Your task to perform on an android device: turn off notifications settings in the gmail app Image 0: 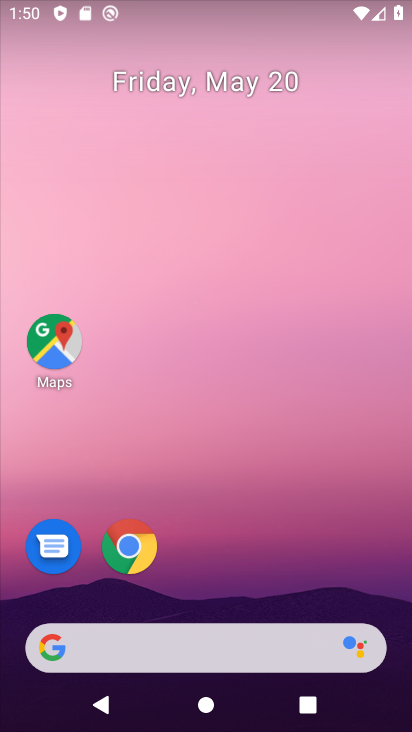
Step 0: click (230, 50)
Your task to perform on an android device: turn off notifications settings in the gmail app Image 1: 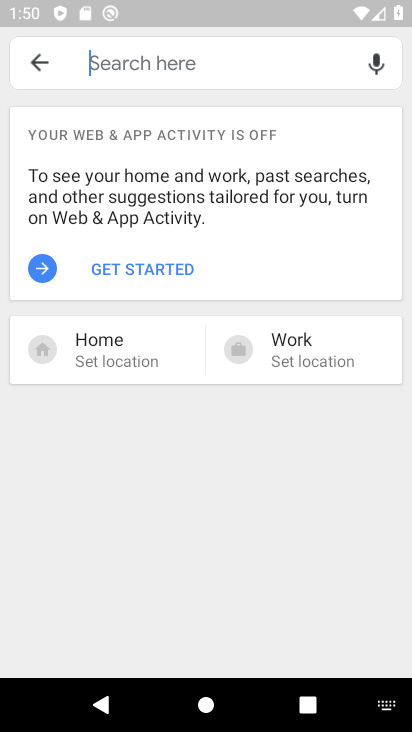
Step 1: press back button
Your task to perform on an android device: turn off notifications settings in the gmail app Image 2: 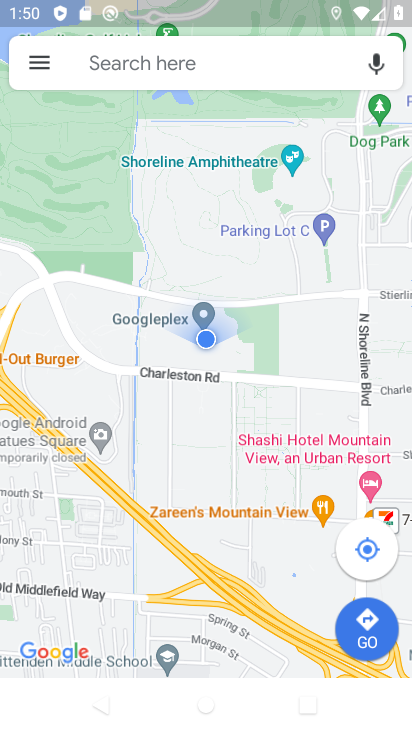
Step 2: press back button
Your task to perform on an android device: turn off notifications settings in the gmail app Image 3: 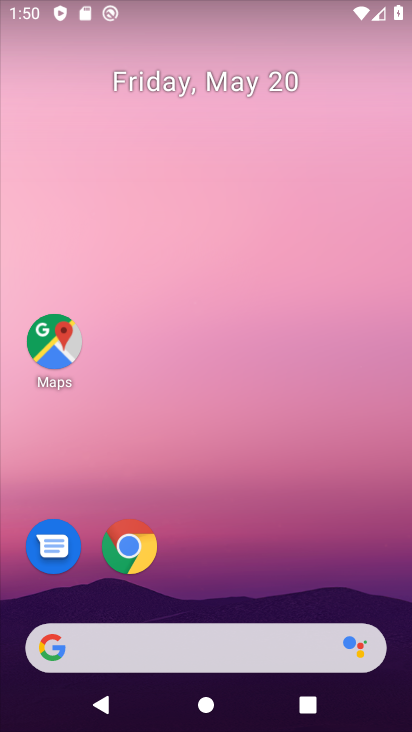
Step 3: drag from (276, 553) to (208, 9)
Your task to perform on an android device: turn off notifications settings in the gmail app Image 4: 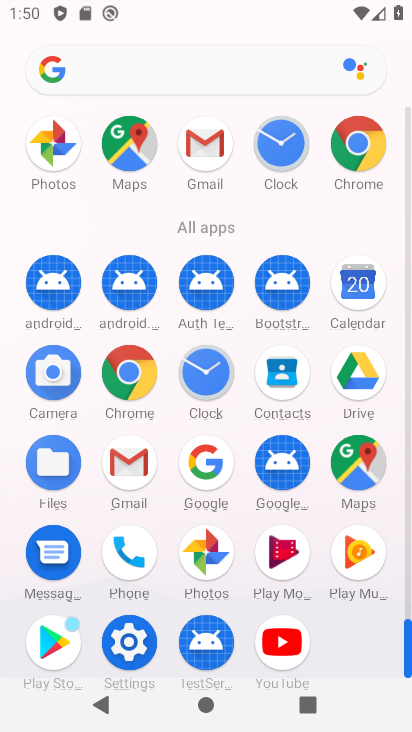
Step 4: drag from (10, 457) to (12, 264)
Your task to perform on an android device: turn off notifications settings in the gmail app Image 5: 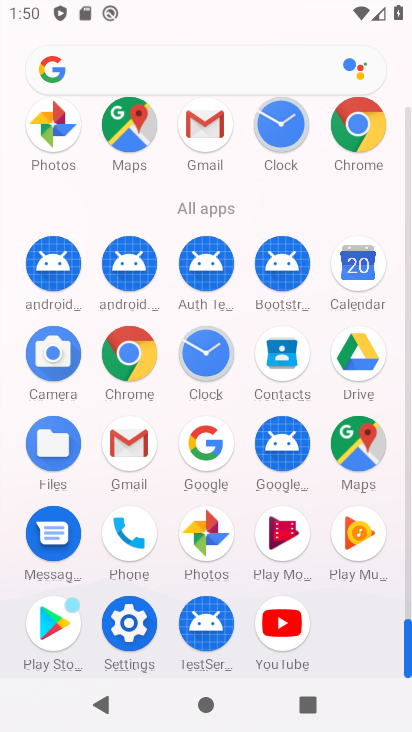
Step 5: click (126, 439)
Your task to perform on an android device: turn off notifications settings in the gmail app Image 6: 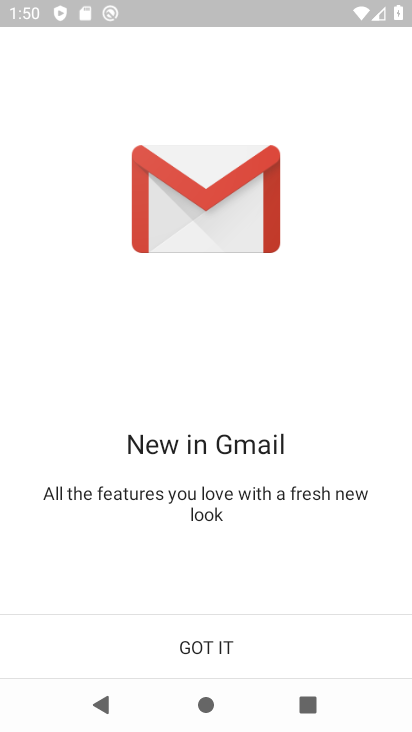
Step 6: click (162, 628)
Your task to perform on an android device: turn off notifications settings in the gmail app Image 7: 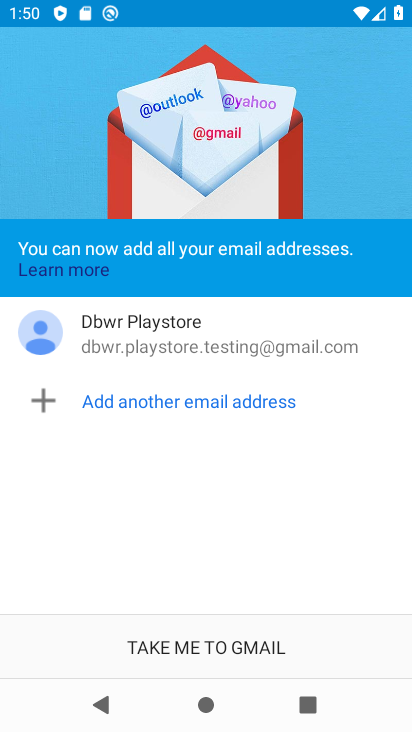
Step 7: click (162, 628)
Your task to perform on an android device: turn off notifications settings in the gmail app Image 8: 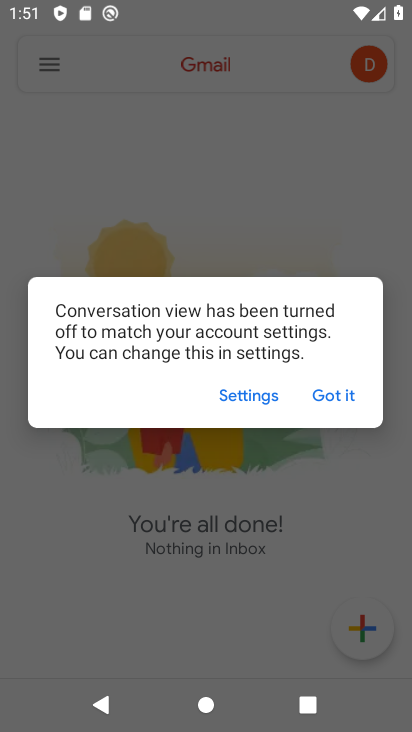
Step 8: click (328, 389)
Your task to perform on an android device: turn off notifications settings in the gmail app Image 9: 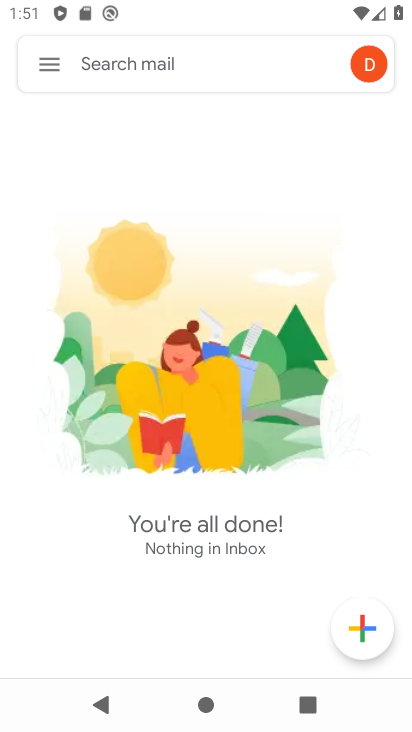
Step 9: click (47, 59)
Your task to perform on an android device: turn off notifications settings in the gmail app Image 10: 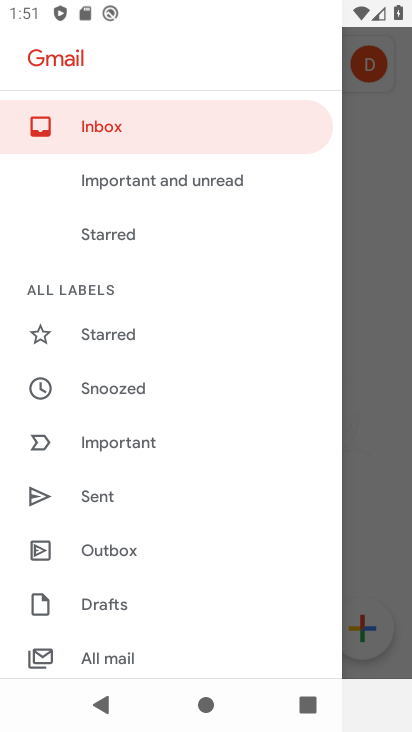
Step 10: drag from (211, 551) to (202, 83)
Your task to perform on an android device: turn off notifications settings in the gmail app Image 11: 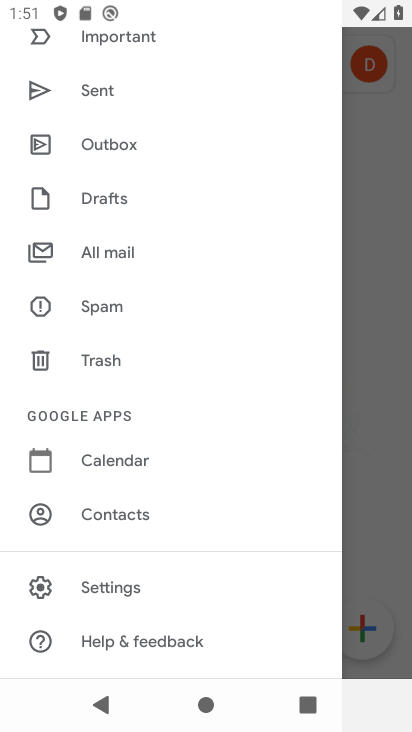
Step 11: click (91, 585)
Your task to perform on an android device: turn off notifications settings in the gmail app Image 12: 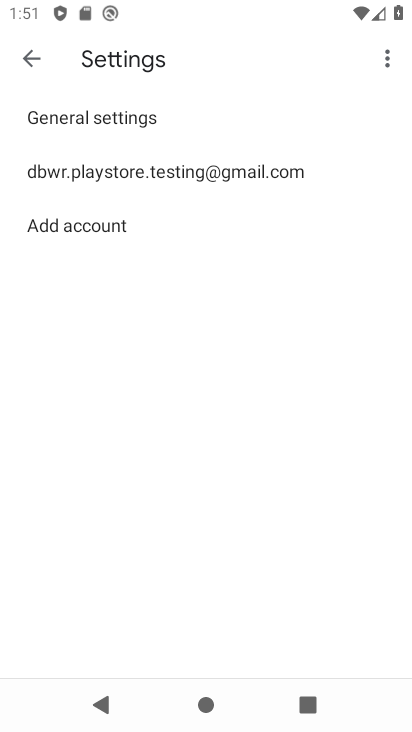
Step 12: click (158, 175)
Your task to perform on an android device: turn off notifications settings in the gmail app Image 13: 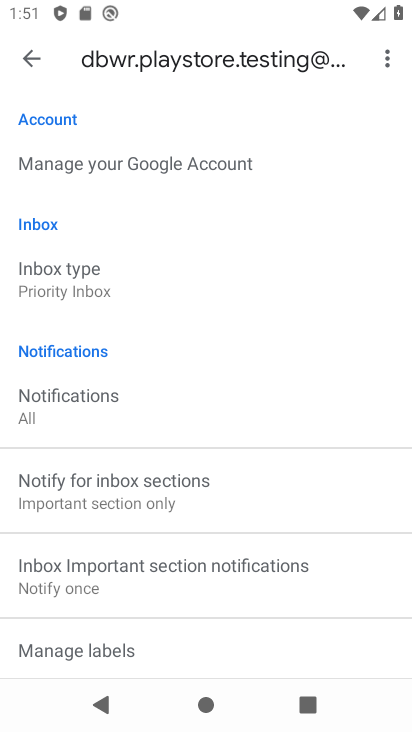
Step 13: drag from (218, 572) to (221, 238)
Your task to perform on an android device: turn off notifications settings in the gmail app Image 14: 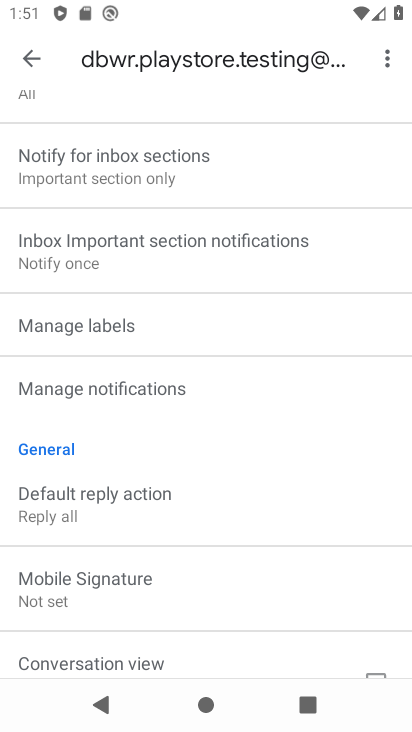
Step 14: click (104, 383)
Your task to perform on an android device: turn off notifications settings in the gmail app Image 15: 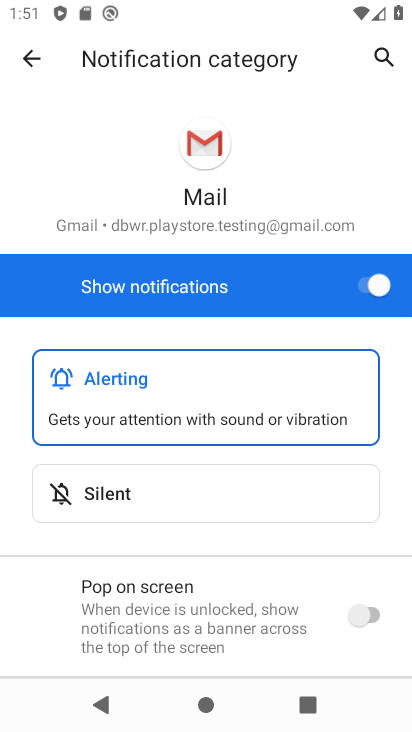
Step 15: click (363, 278)
Your task to perform on an android device: turn off notifications settings in the gmail app Image 16: 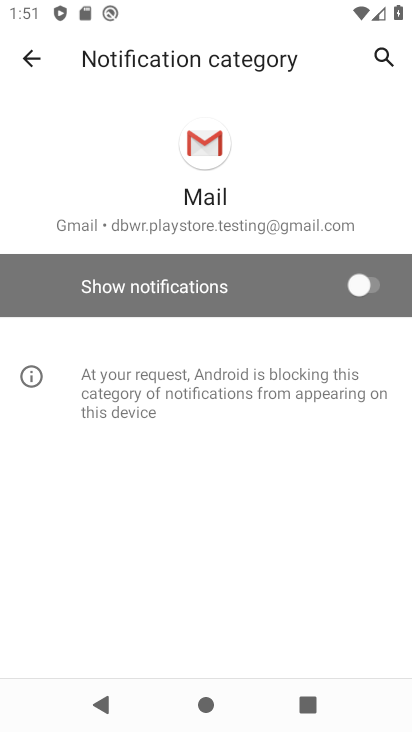
Step 16: task complete